Your task to perform on an android device: Search for Italian restaurants on Maps Image 0: 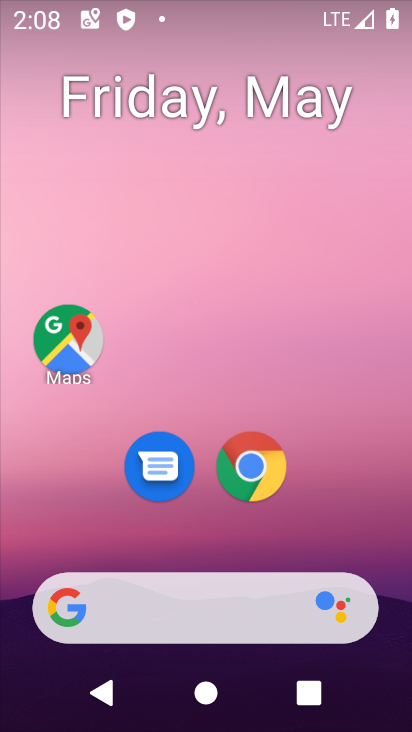
Step 0: click (77, 353)
Your task to perform on an android device: Search for Italian restaurants on Maps Image 1: 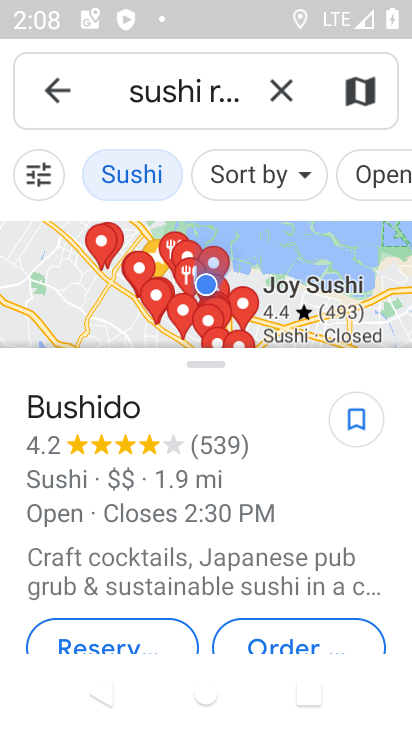
Step 1: click (283, 88)
Your task to perform on an android device: Search for Italian restaurants on Maps Image 2: 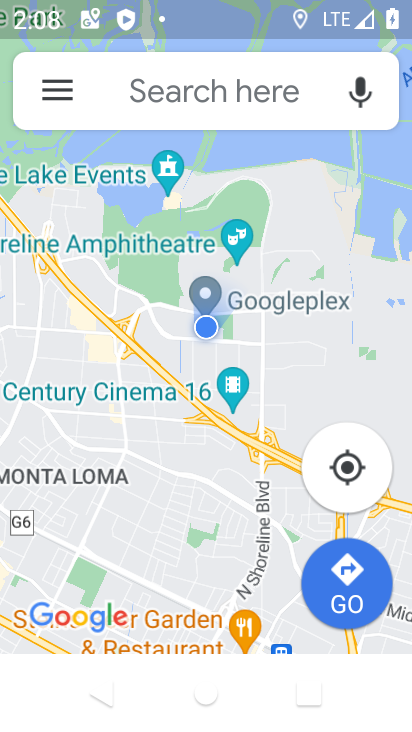
Step 2: click (245, 82)
Your task to perform on an android device: Search for Italian restaurants on Maps Image 3: 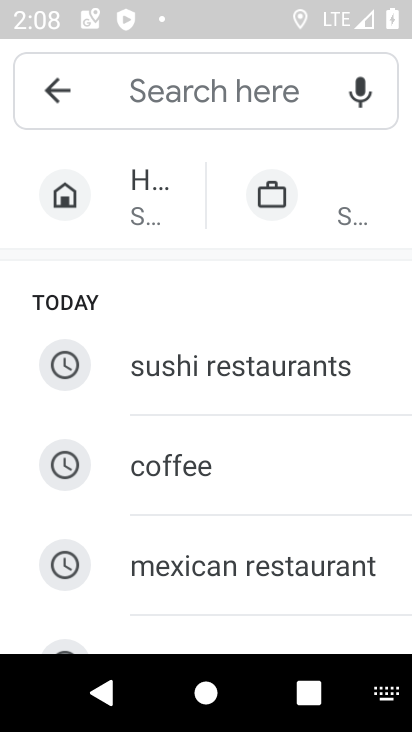
Step 3: type " Italian restaurants"
Your task to perform on an android device: Search for Italian restaurants on Maps Image 4: 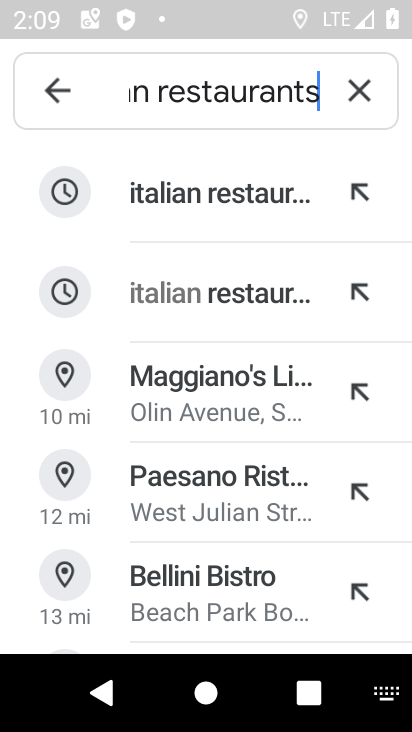
Step 4: click (163, 195)
Your task to perform on an android device: Search for Italian restaurants on Maps Image 5: 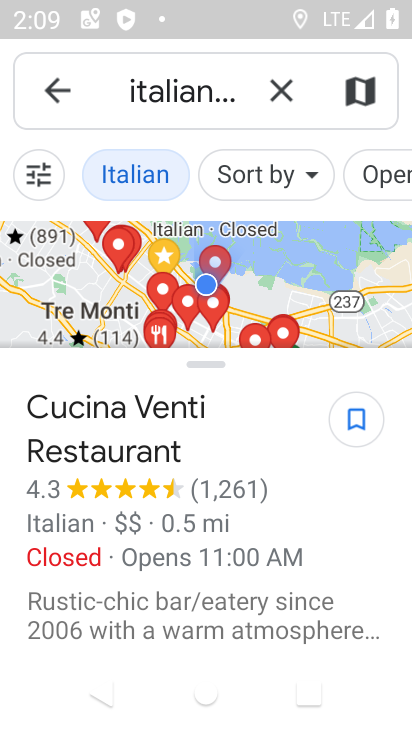
Step 5: task complete